Your task to perform on an android device: Search for usb-c to usb-b on bestbuy.com, select the first entry, and add it to the cart. Image 0: 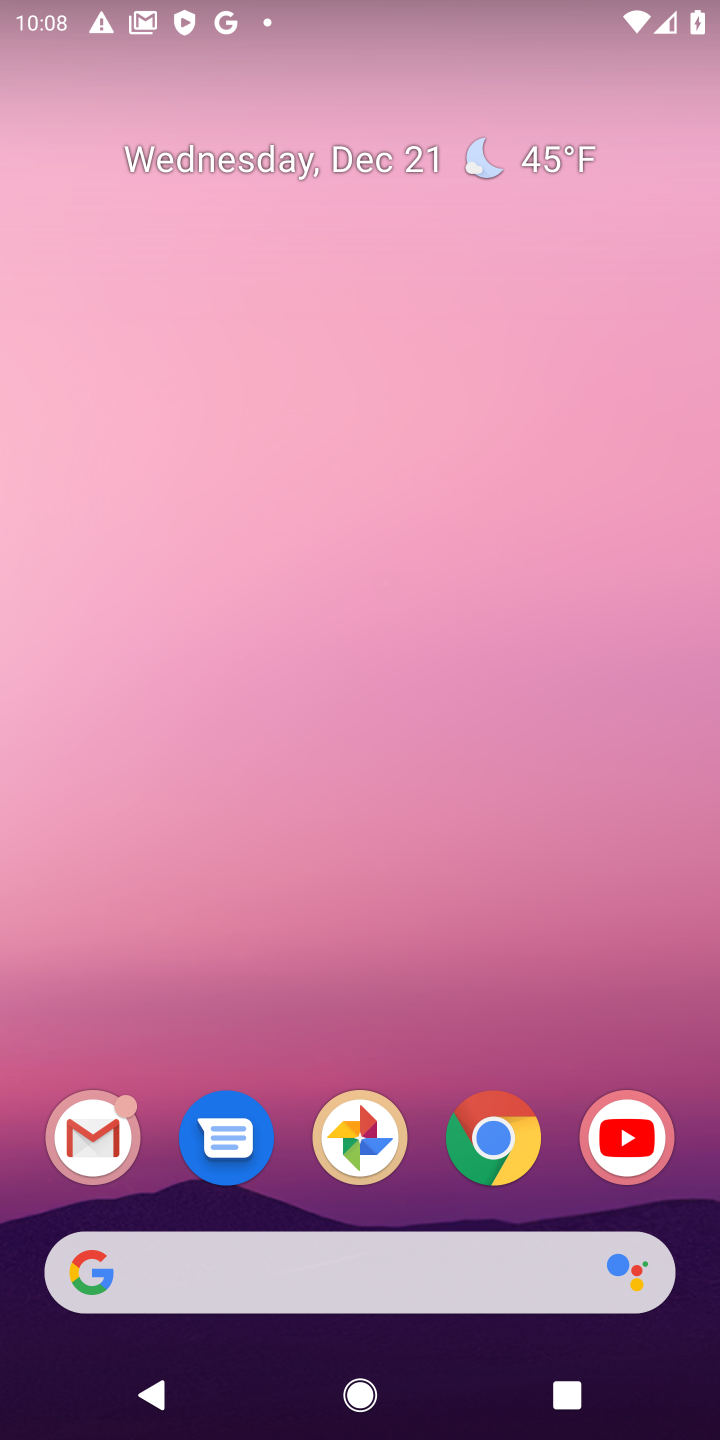
Step 0: click (500, 1138)
Your task to perform on an android device: Search for usb-c to usb-b on bestbuy.com, select the first entry, and add it to the cart. Image 1: 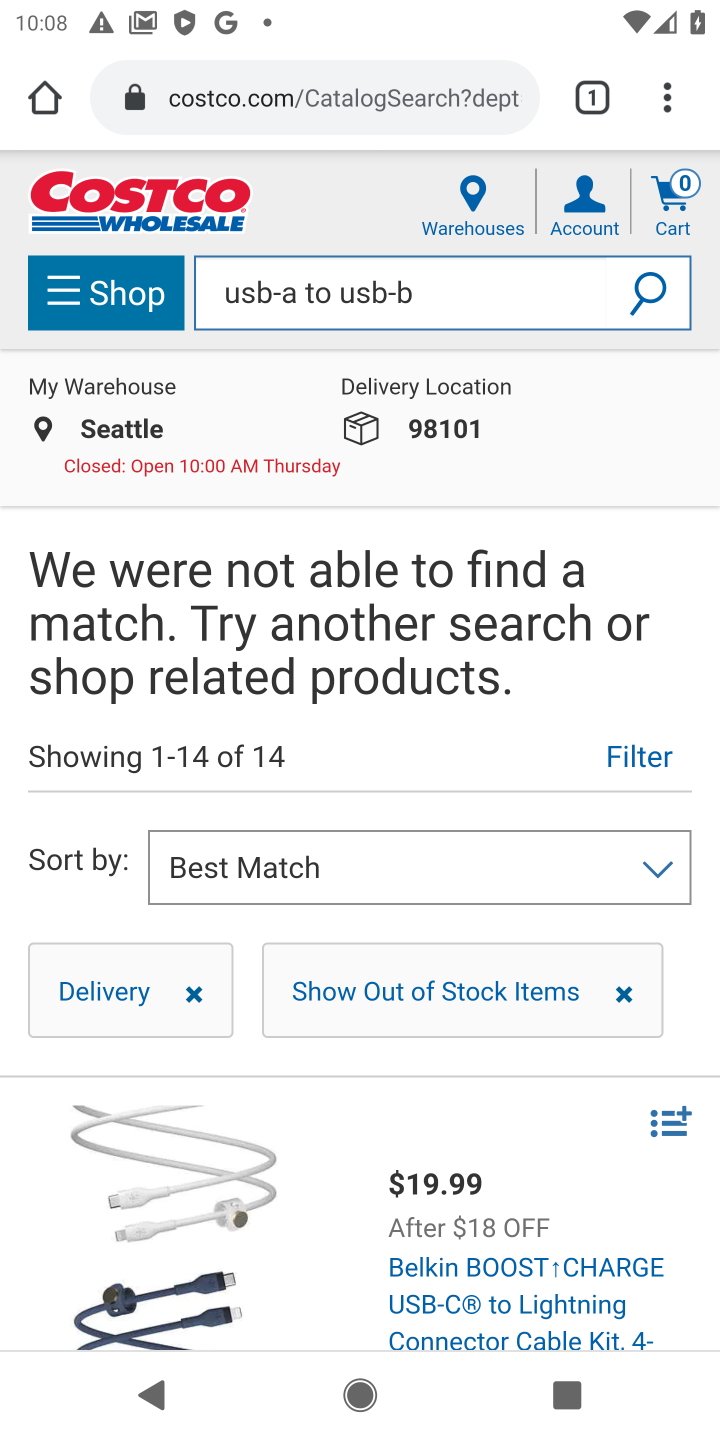
Step 1: click (308, 92)
Your task to perform on an android device: Search for usb-c to usb-b on bestbuy.com, select the first entry, and add it to the cart. Image 2: 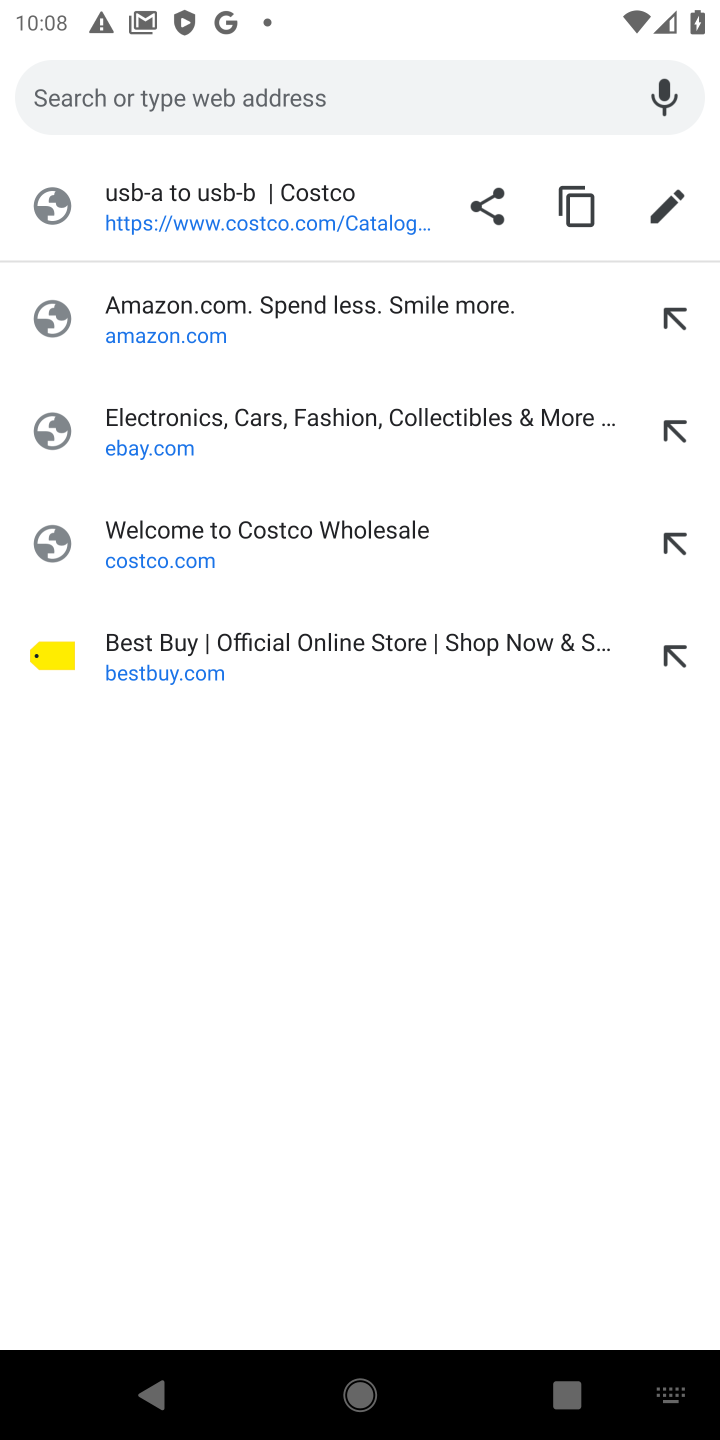
Step 2: click (129, 637)
Your task to perform on an android device: Search for usb-c to usb-b on bestbuy.com, select the first entry, and add it to the cart. Image 3: 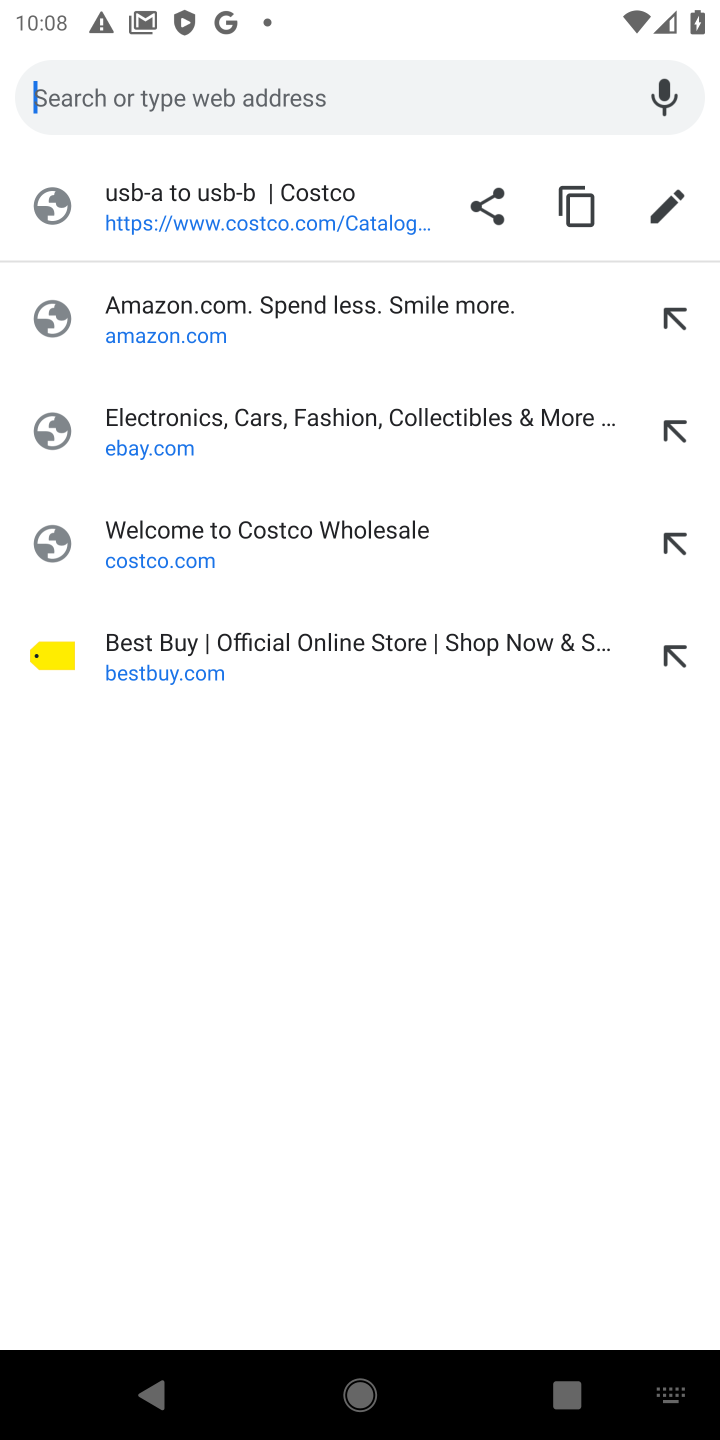
Step 3: click (180, 652)
Your task to perform on an android device: Search for usb-c to usb-b on bestbuy.com, select the first entry, and add it to the cart. Image 4: 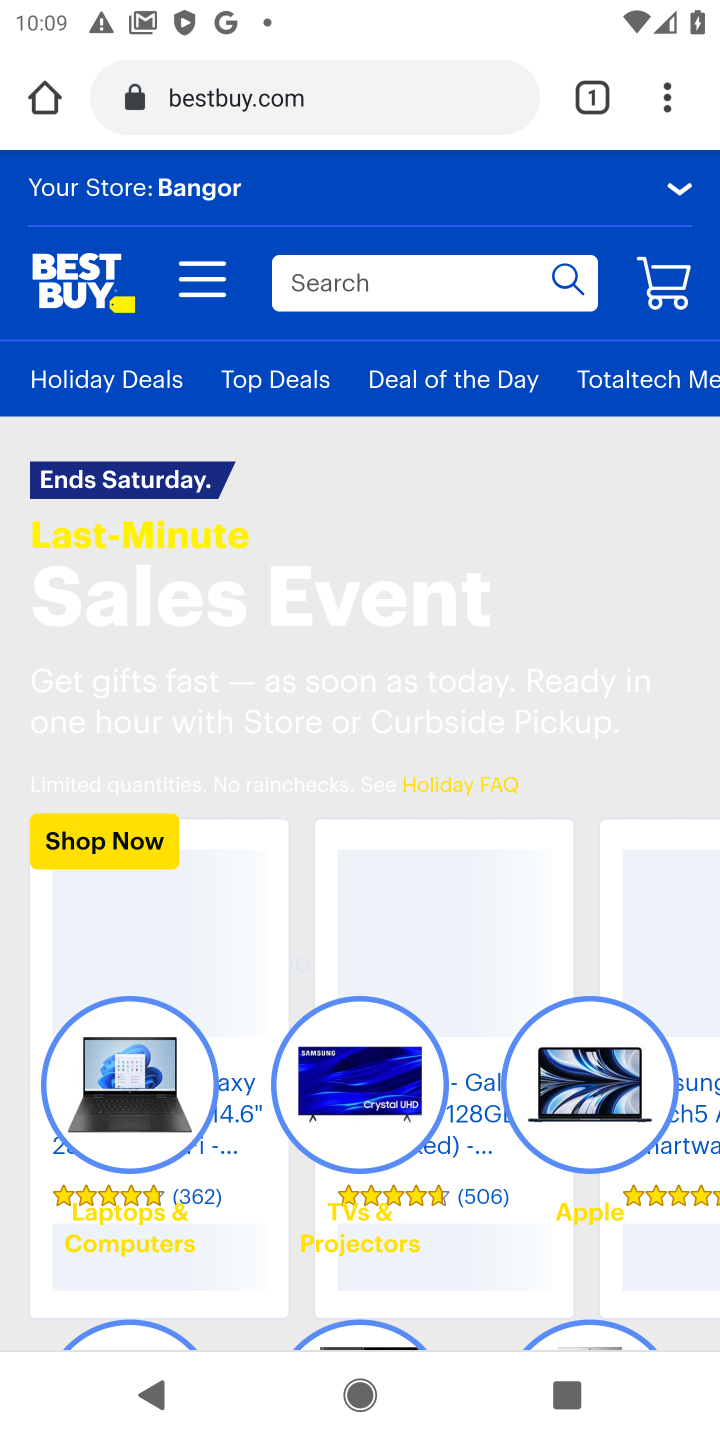
Step 4: click (311, 283)
Your task to perform on an android device: Search for usb-c to usb-b on bestbuy.com, select the first entry, and add it to the cart. Image 5: 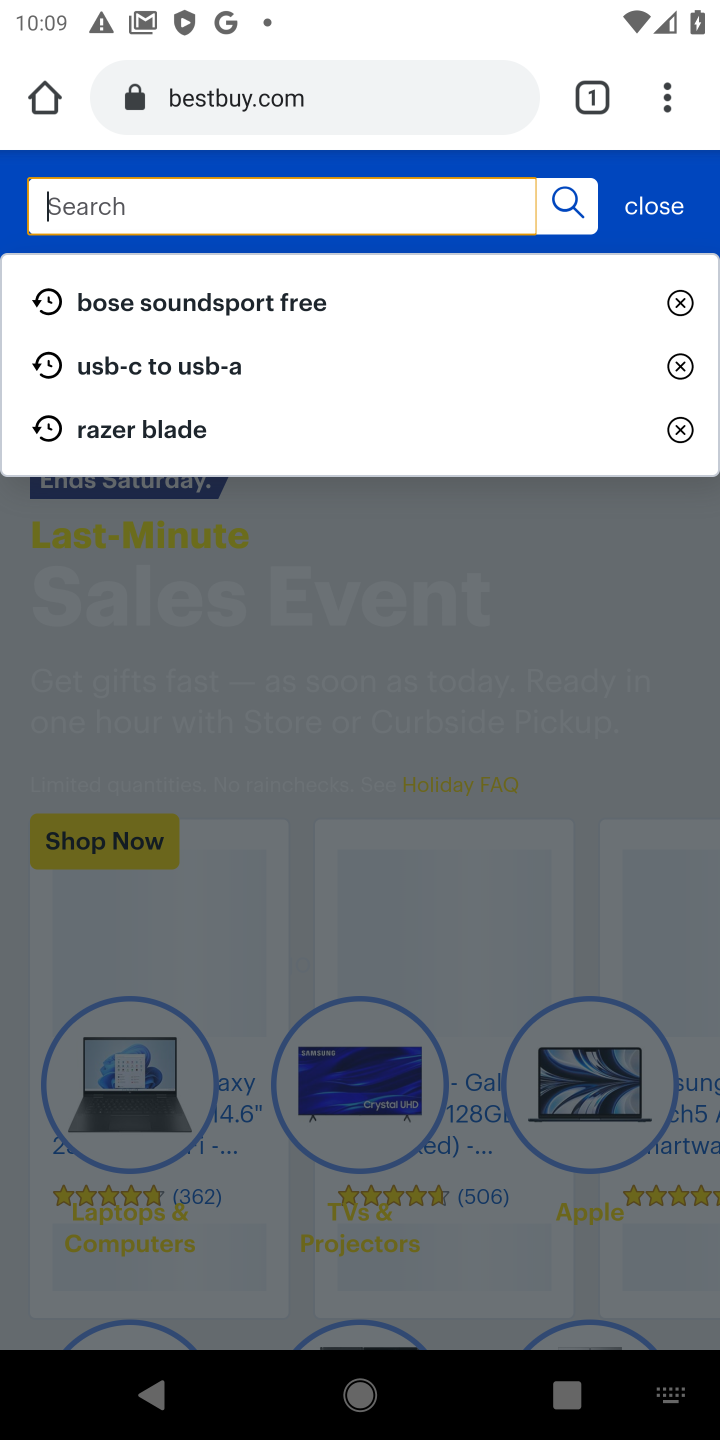
Step 5: type "usb-c to usb-b"
Your task to perform on an android device: Search for usb-c to usb-b on bestbuy.com, select the first entry, and add it to the cart. Image 6: 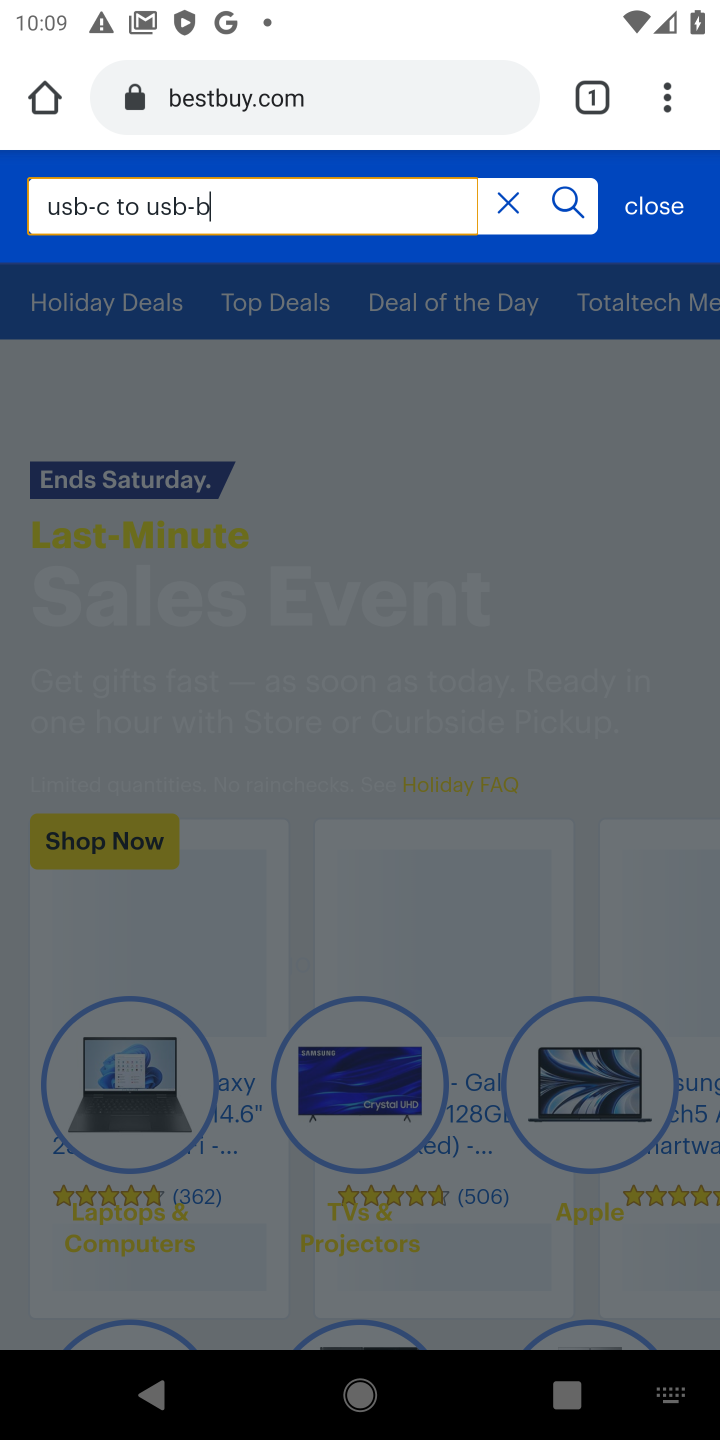
Step 6: click (568, 216)
Your task to perform on an android device: Search for usb-c to usb-b on bestbuy.com, select the first entry, and add it to the cart. Image 7: 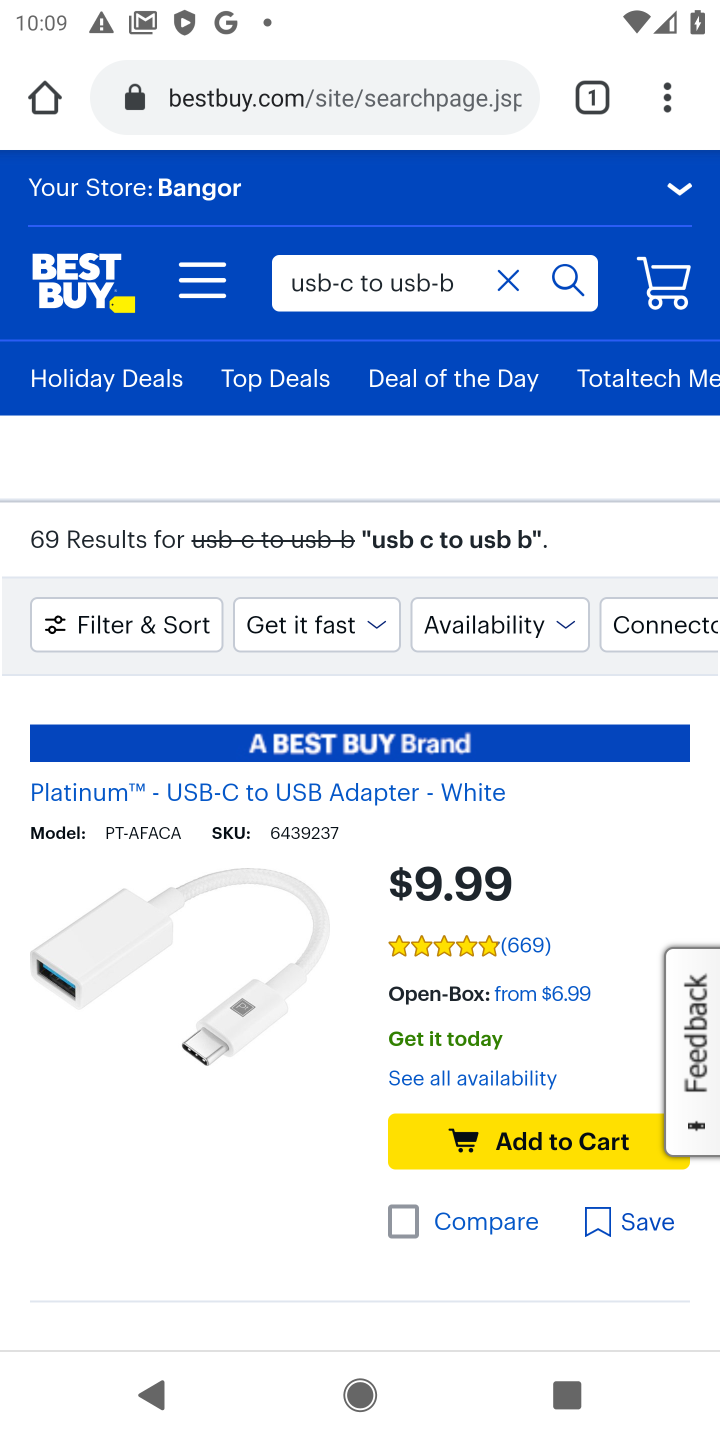
Step 7: task complete